Your task to perform on an android device: add a contact Image 0: 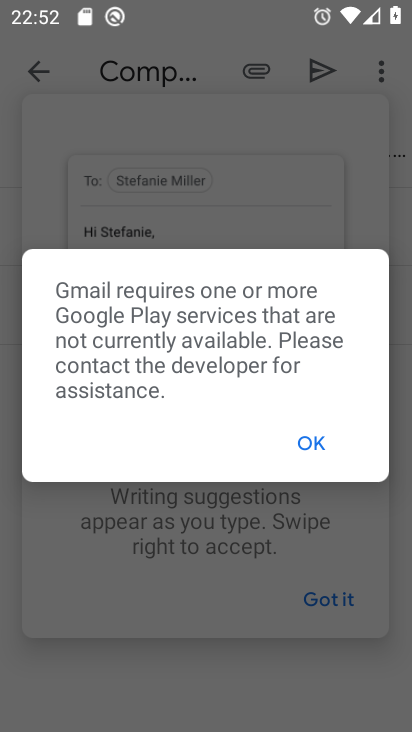
Step 0: press home button
Your task to perform on an android device: add a contact Image 1: 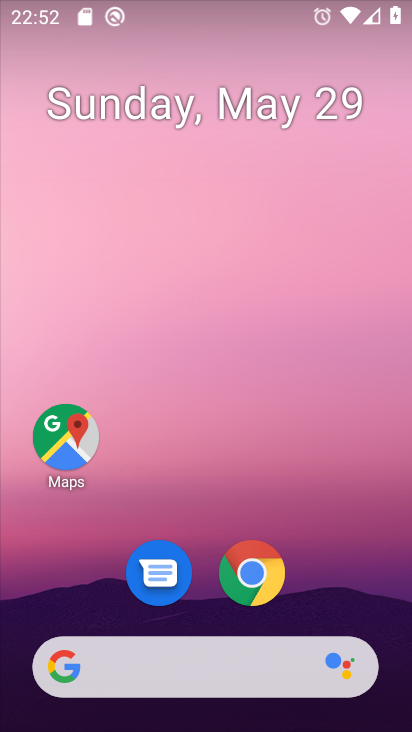
Step 1: drag from (207, 493) to (185, 25)
Your task to perform on an android device: add a contact Image 2: 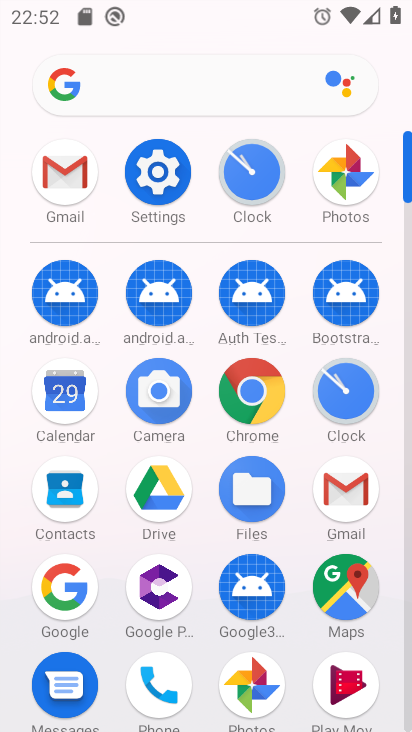
Step 2: click (67, 504)
Your task to perform on an android device: add a contact Image 3: 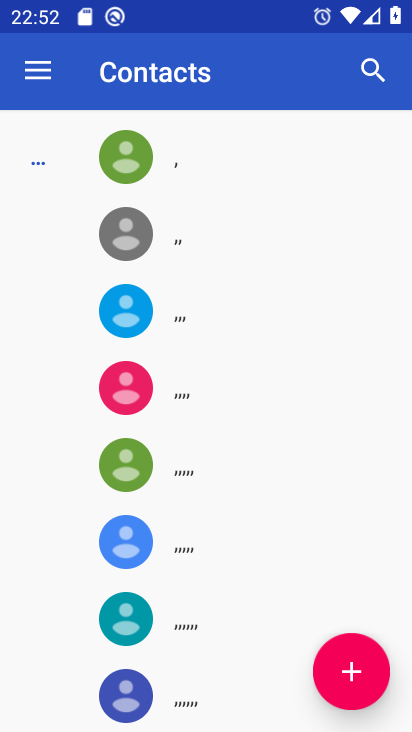
Step 3: click (351, 662)
Your task to perform on an android device: add a contact Image 4: 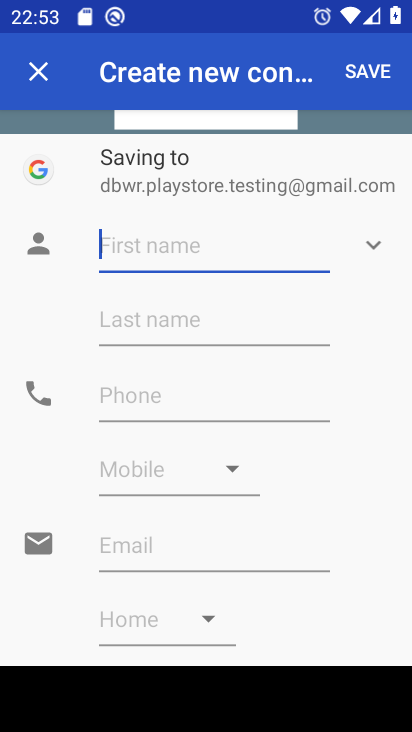
Step 4: type "Tejomahalaya Shiv Mandir"
Your task to perform on an android device: add a contact Image 5: 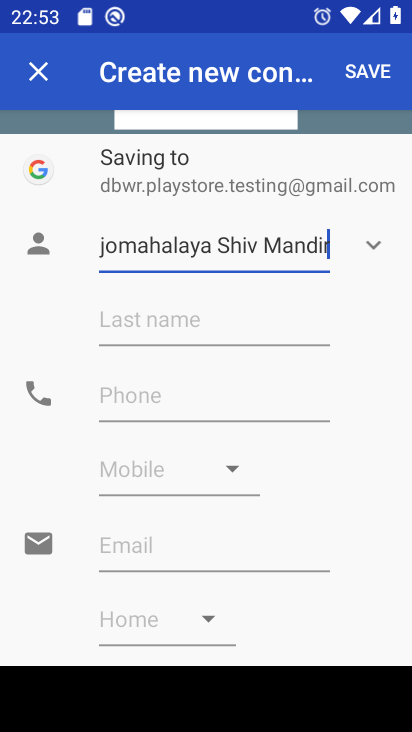
Step 5: click (284, 404)
Your task to perform on an android device: add a contact Image 6: 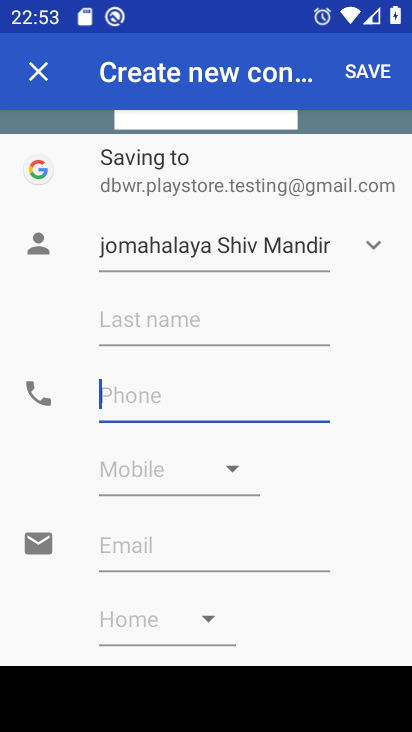
Step 6: type "011223445566"
Your task to perform on an android device: add a contact Image 7: 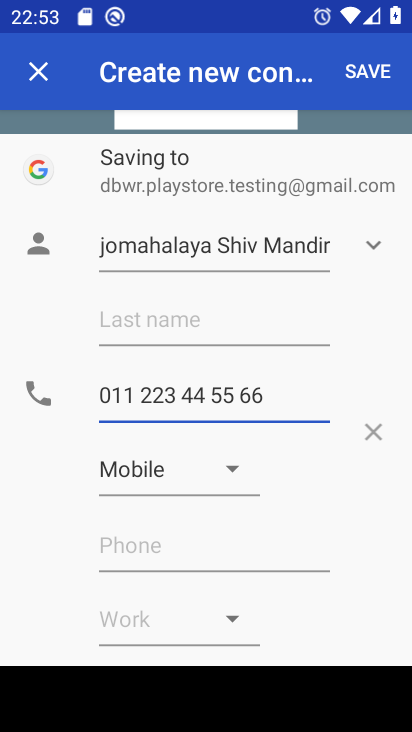
Step 7: click (373, 70)
Your task to perform on an android device: add a contact Image 8: 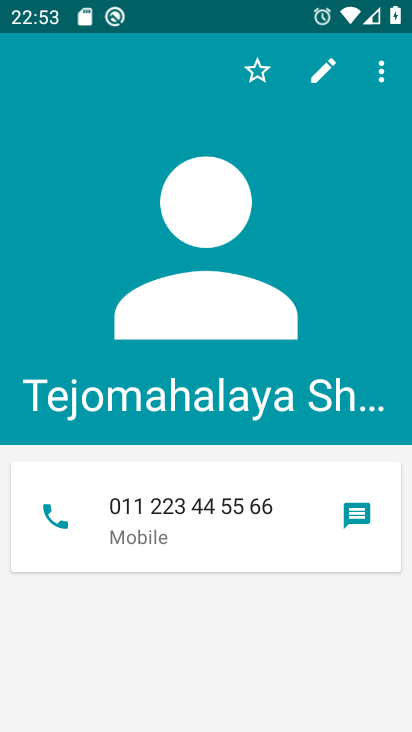
Step 8: task complete